Your task to perform on an android device: Go to location settings Image 0: 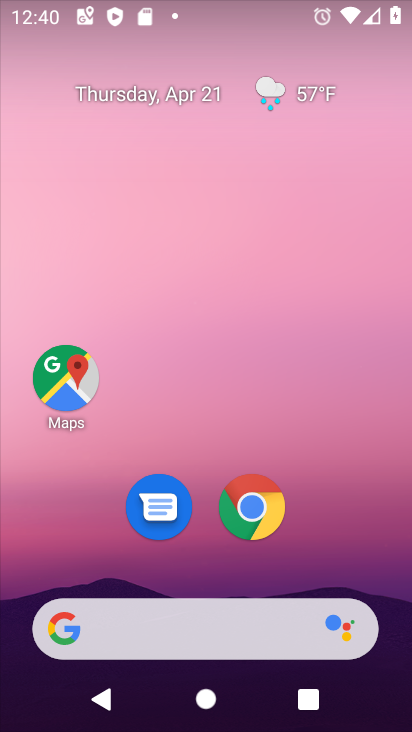
Step 0: drag from (210, 447) to (279, 41)
Your task to perform on an android device: Go to location settings Image 1: 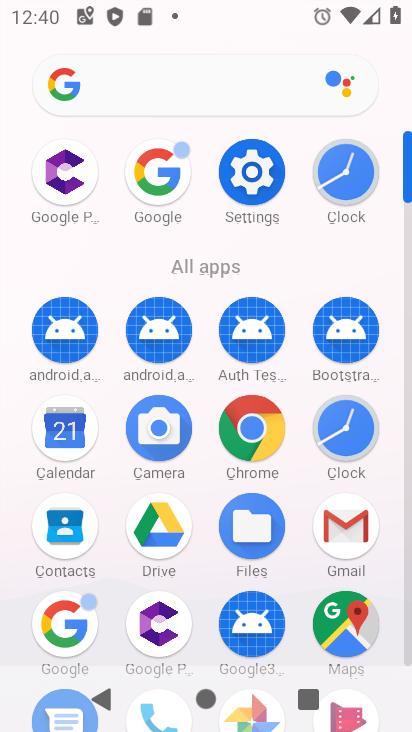
Step 1: click (252, 171)
Your task to perform on an android device: Go to location settings Image 2: 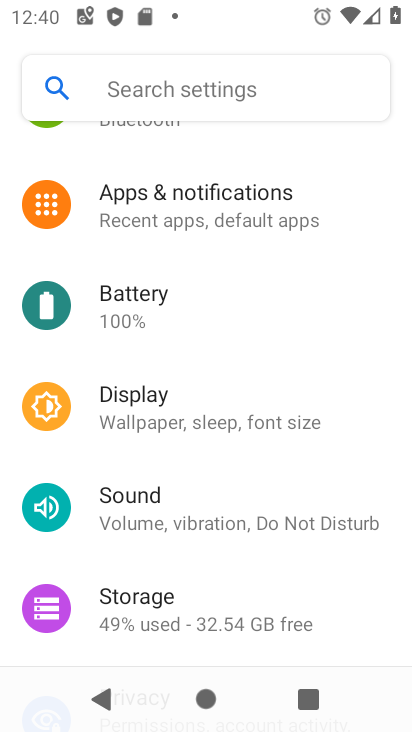
Step 2: drag from (201, 489) to (253, 335)
Your task to perform on an android device: Go to location settings Image 3: 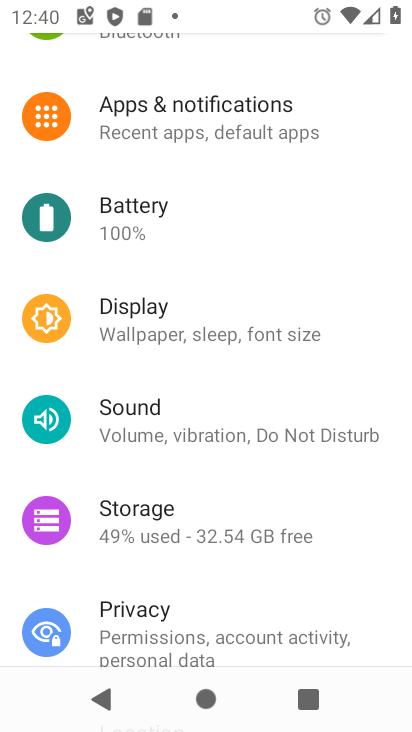
Step 3: drag from (203, 464) to (239, 295)
Your task to perform on an android device: Go to location settings Image 4: 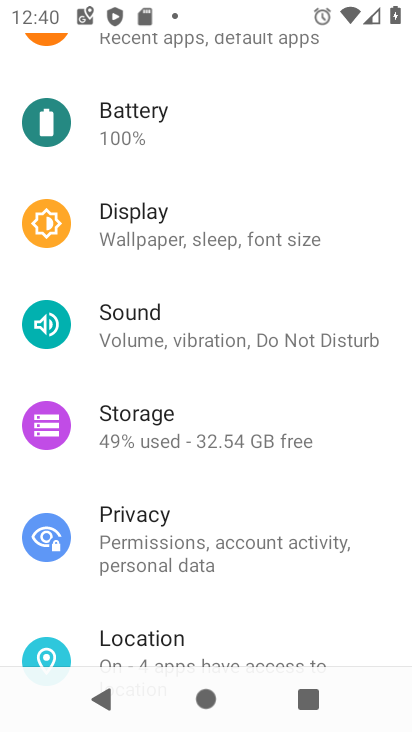
Step 4: drag from (225, 476) to (270, 301)
Your task to perform on an android device: Go to location settings Image 5: 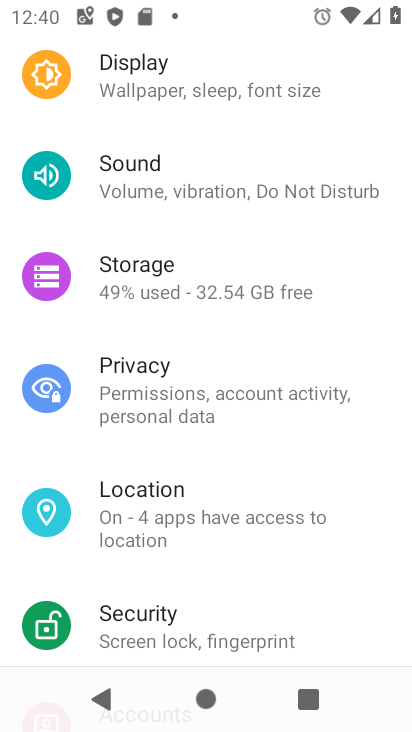
Step 5: click (152, 499)
Your task to perform on an android device: Go to location settings Image 6: 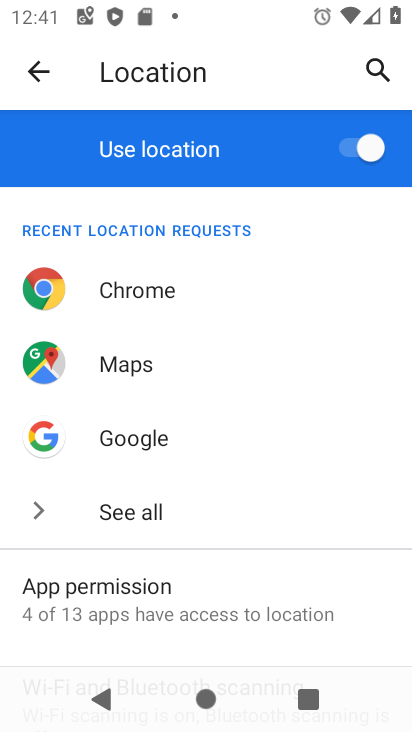
Step 6: task complete